Your task to perform on an android device: Go to Maps Image 0: 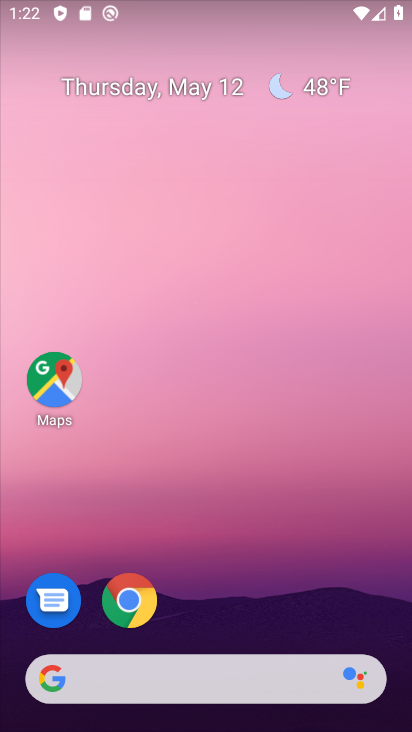
Step 0: click (43, 375)
Your task to perform on an android device: Go to Maps Image 1: 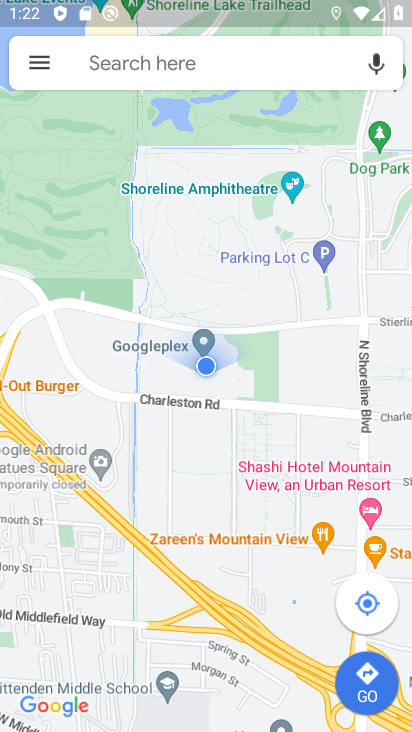
Step 1: task complete